Your task to perform on an android device: find snoozed emails in the gmail app Image 0: 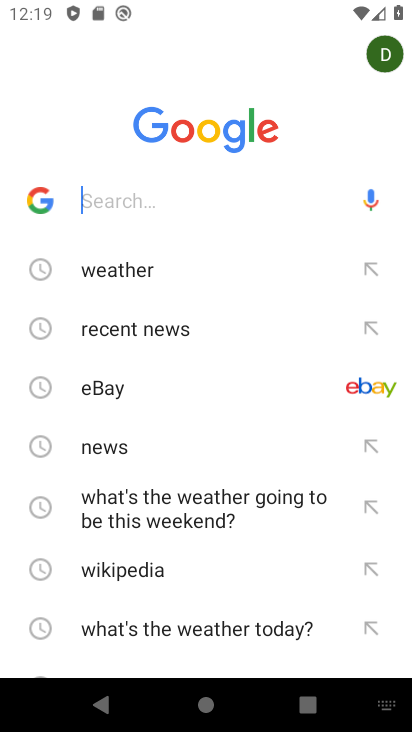
Step 0: press home button
Your task to perform on an android device: find snoozed emails in the gmail app Image 1: 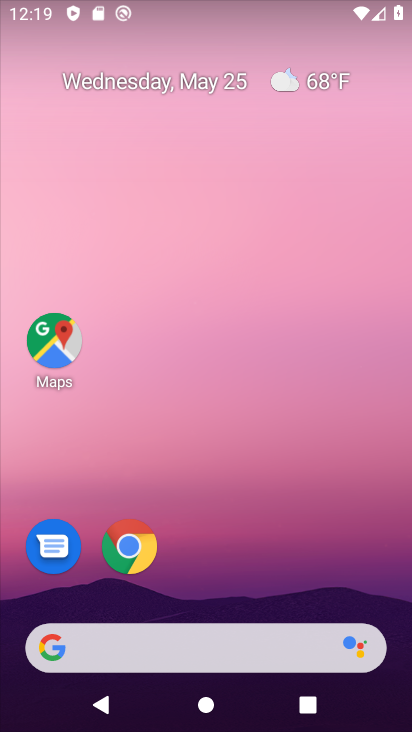
Step 1: drag from (243, 591) to (240, 133)
Your task to perform on an android device: find snoozed emails in the gmail app Image 2: 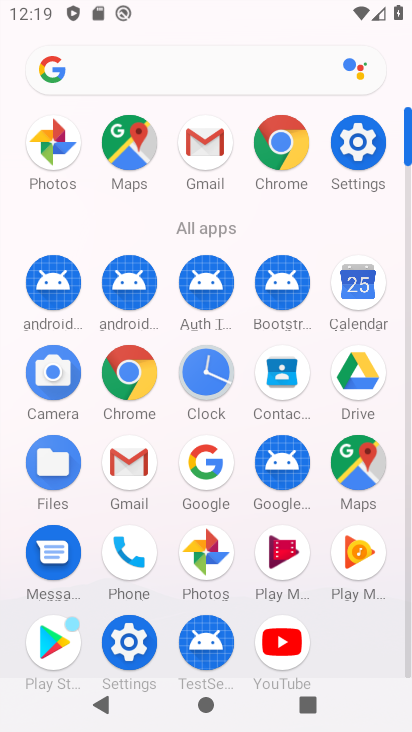
Step 2: click (202, 162)
Your task to perform on an android device: find snoozed emails in the gmail app Image 3: 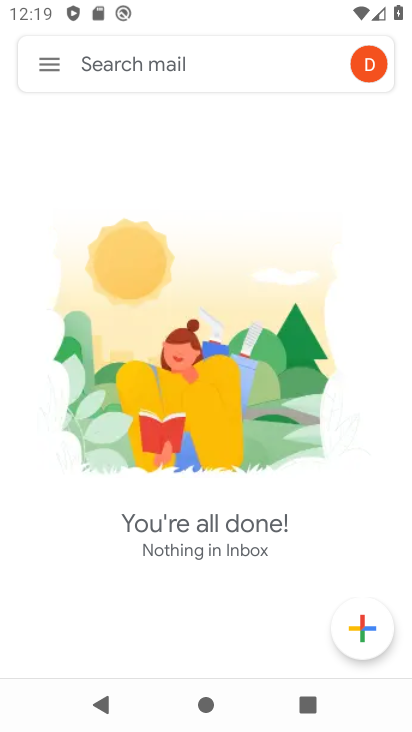
Step 3: click (65, 68)
Your task to perform on an android device: find snoozed emails in the gmail app Image 4: 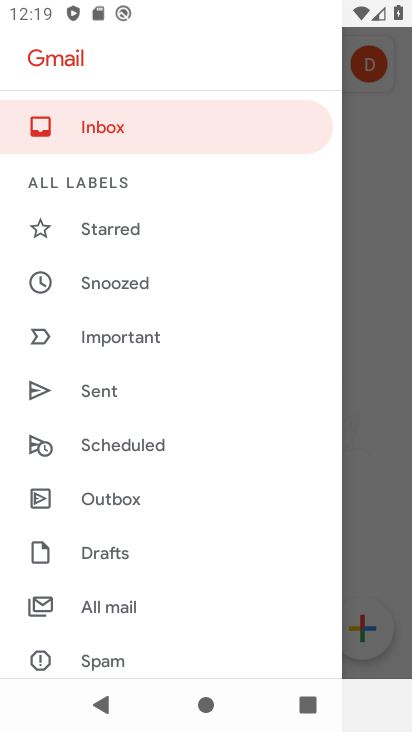
Step 4: click (181, 290)
Your task to perform on an android device: find snoozed emails in the gmail app Image 5: 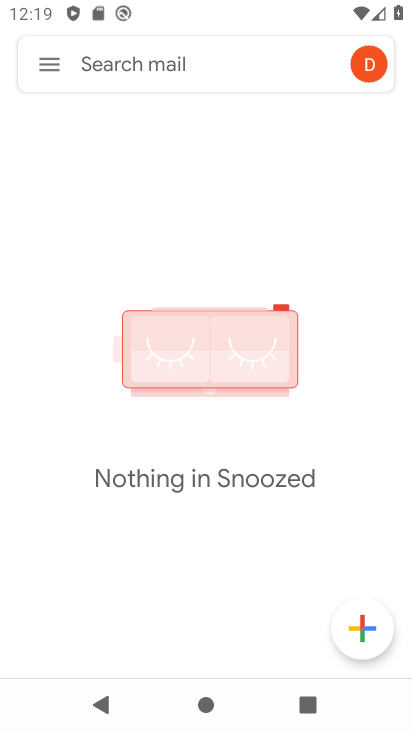
Step 5: task complete